Your task to perform on an android device: refresh tabs in the chrome app Image 0: 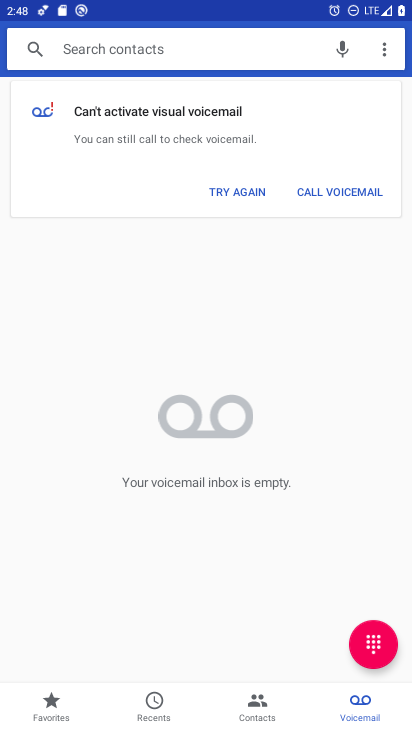
Step 0: press home button
Your task to perform on an android device: refresh tabs in the chrome app Image 1: 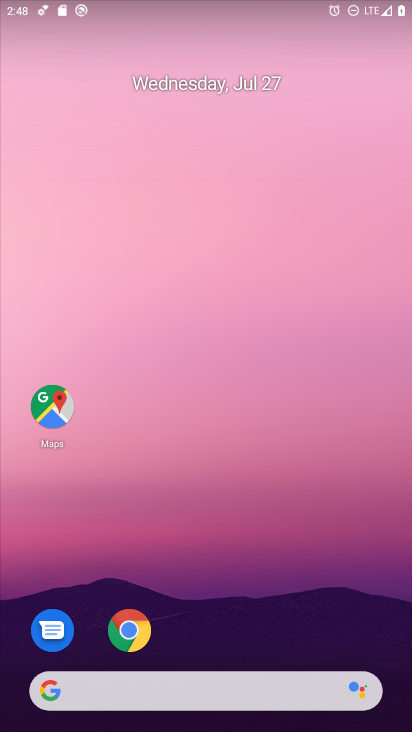
Step 1: click (131, 636)
Your task to perform on an android device: refresh tabs in the chrome app Image 2: 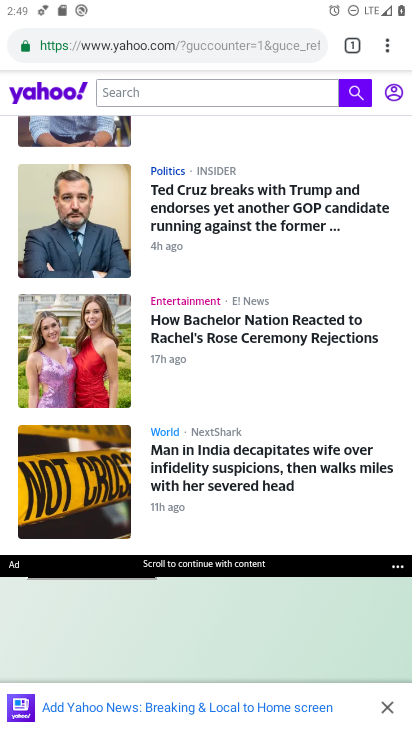
Step 2: click (388, 51)
Your task to perform on an android device: refresh tabs in the chrome app Image 3: 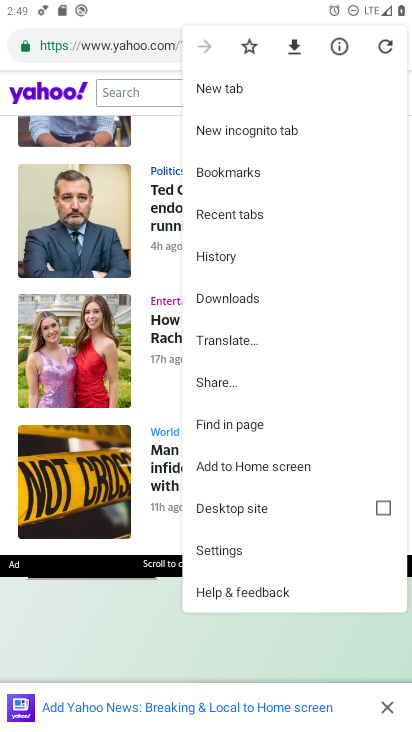
Step 3: click (386, 43)
Your task to perform on an android device: refresh tabs in the chrome app Image 4: 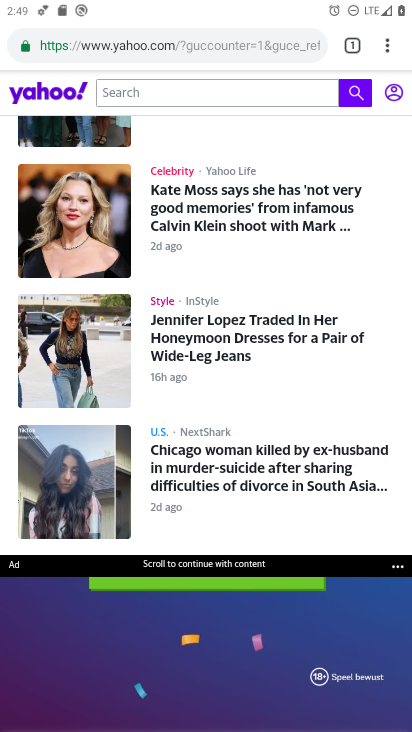
Step 4: task complete